Your task to perform on an android device: What's the weather? Image 0: 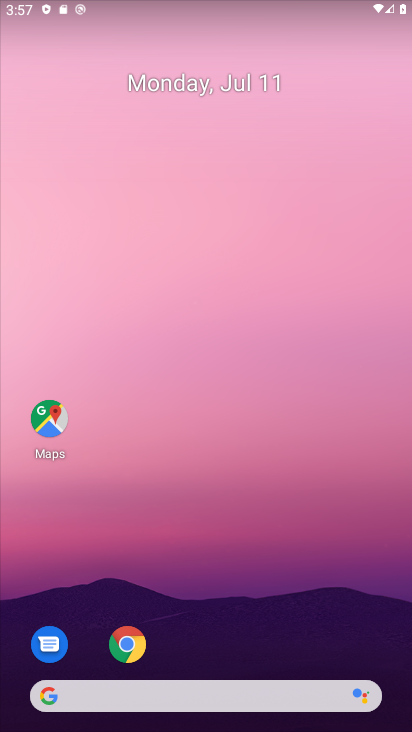
Step 0: drag from (212, 704) to (233, 89)
Your task to perform on an android device: What's the weather? Image 1: 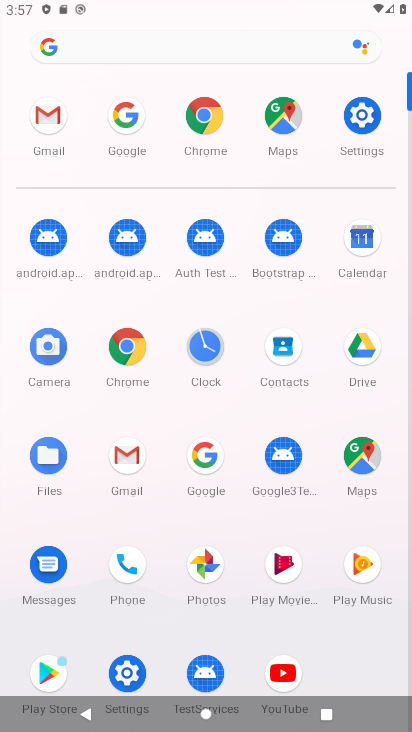
Step 1: click (200, 451)
Your task to perform on an android device: What's the weather? Image 2: 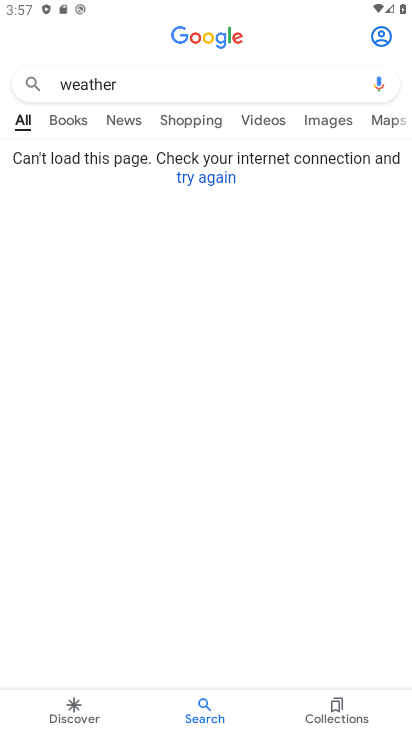
Step 2: click (133, 84)
Your task to perform on an android device: What's the weather? Image 3: 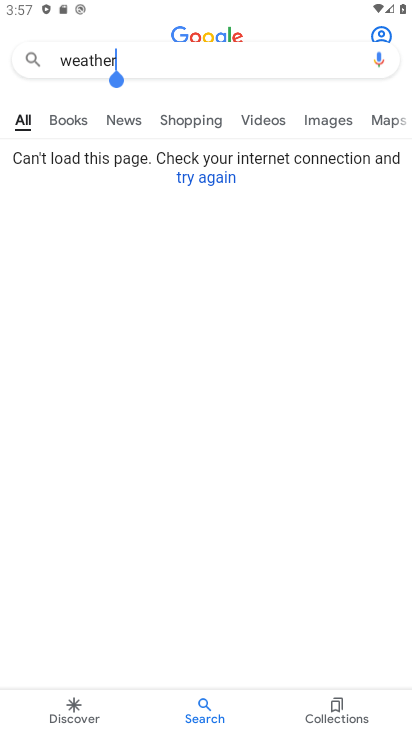
Step 3: click (211, 176)
Your task to perform on an android device: What's the weather? Image 4: 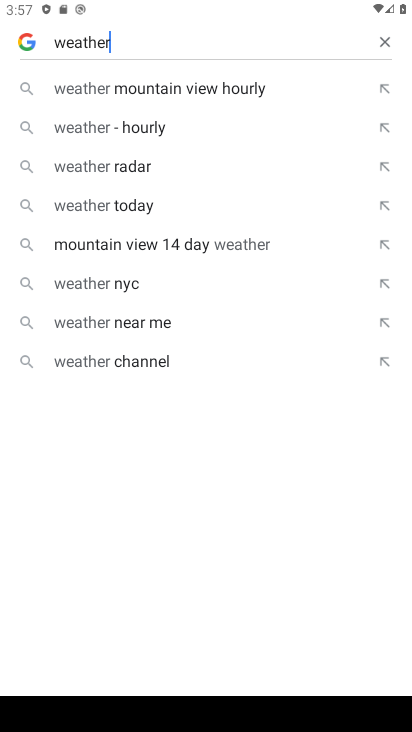
Step 4: click (80, 200)
Your task to perform on an android device: What's the weather? Image 5: 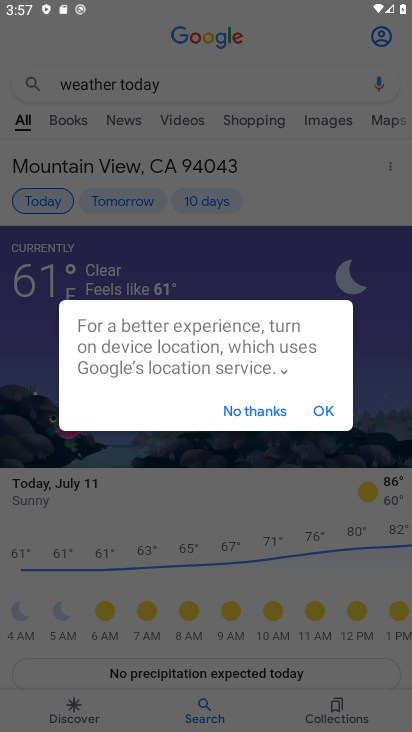
Step 5: click (269, 414)
Your task to perform on an android device: What's the weather? Image 6: 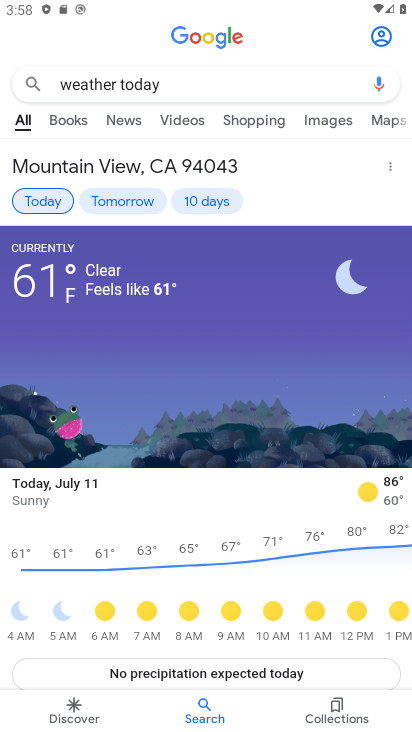
Step 6: click (57, 196)
Your task to perform on an android device: What's the weather? Image 7: 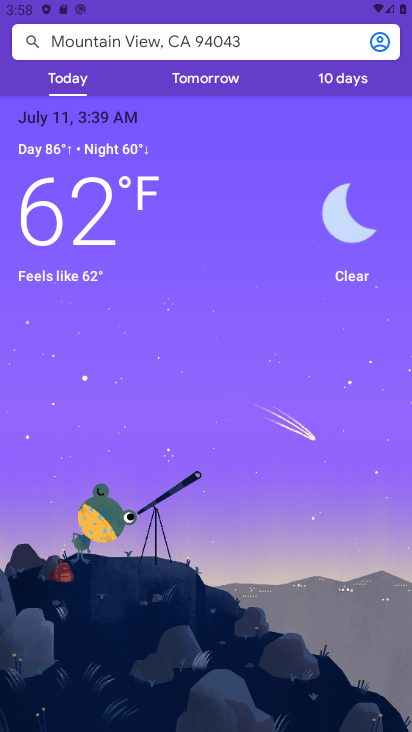
Step 7: task complete